Your task to perform on an android device: set default search engine in the chrome app Image 0: 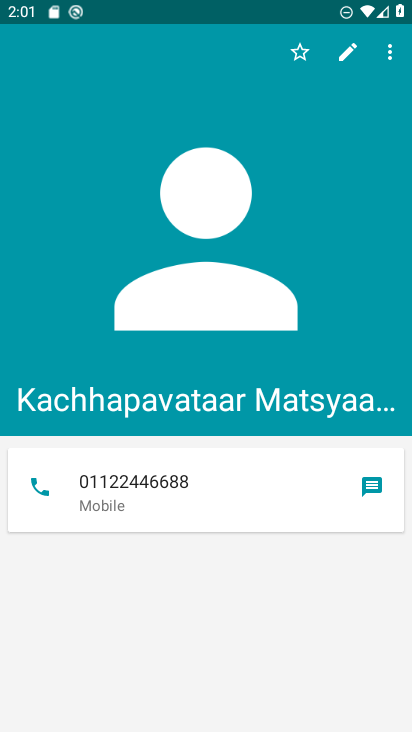
Step 0: press home button
Your task to perform on an android device: set default search engine in the chrome app Image 1: 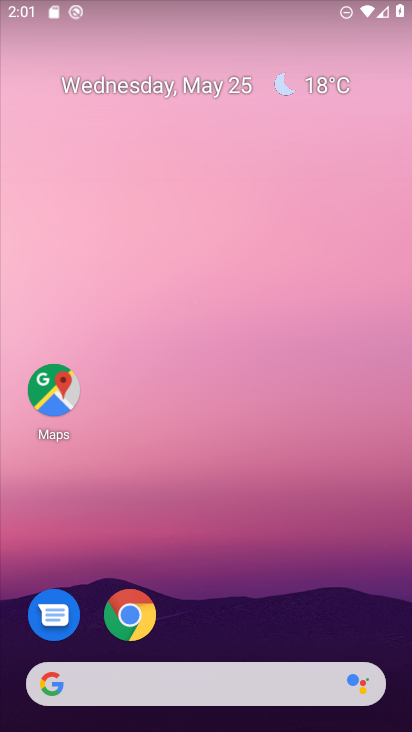
Step 1: click (125, 616)
Your task to perform on an android device: set default search engine in the chrome app Image 2: 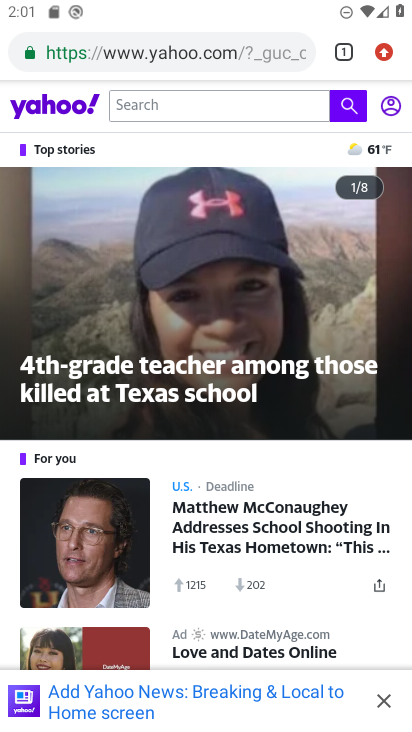
Step 2: click (383, 48)
Your task to perform on an android device: set default search engine in the chrome app Image 3: 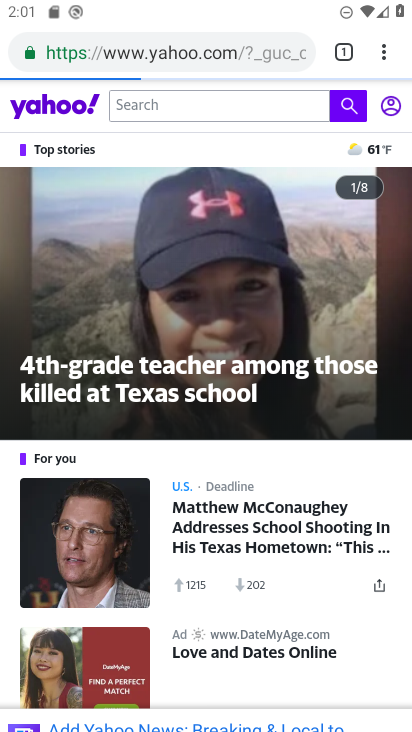
Step 3: click (383, 48)
Your task to perform on an android device: set default search engine in the chrome app Image 4: 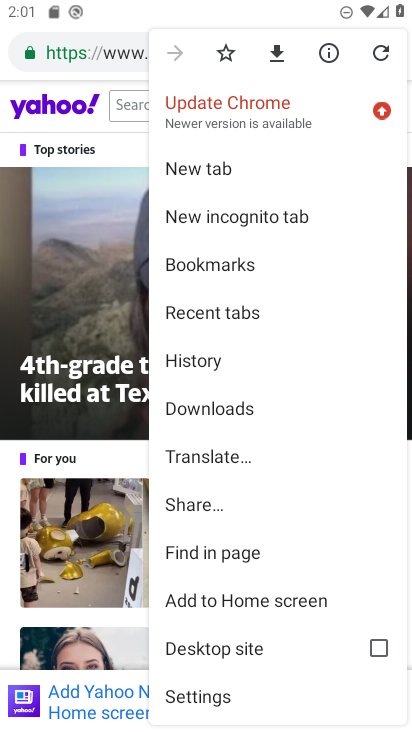
Step 4: click (230, 692)
Your task to perform on an android device: set default search engine in the chrome app Image 5: 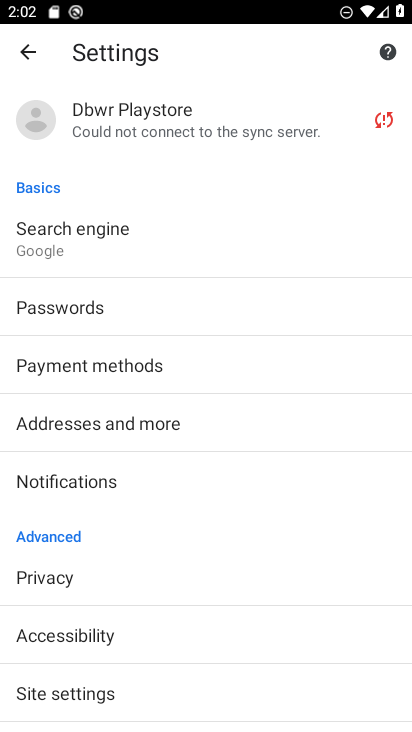
Step 5: drag from (240, 538) to (257, 302)
Your task to perform on an android device: set default search engine in the chrome app Image 6: 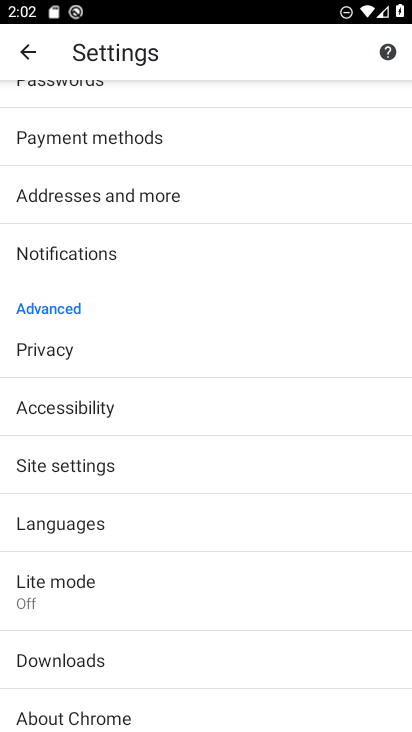
Step 6: click (220, 459)
Your task to perform on an android device: set default search engine in the chrome app Image 7: 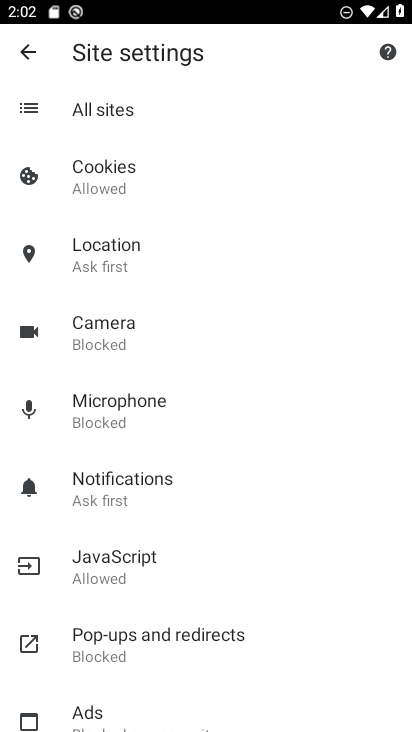
Step 7: click (31, 48)
Your task to perform on an android device: set default search engine in the chrome app Image 8: 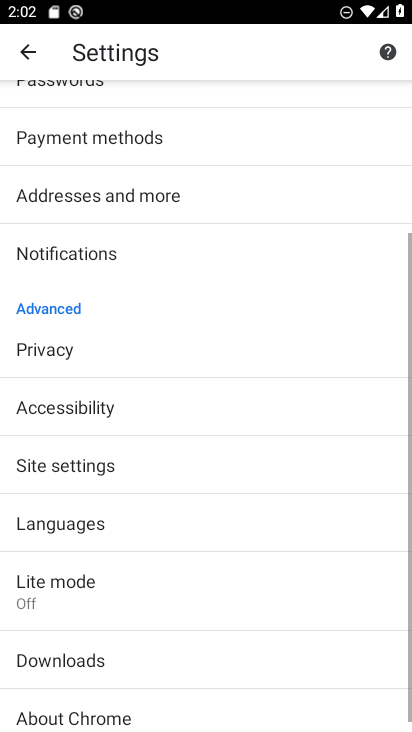
Step 8: drag from (142, 278) to (168, 565)
Your task to perform on an android device: set default search engine in the chrome app Image 9: 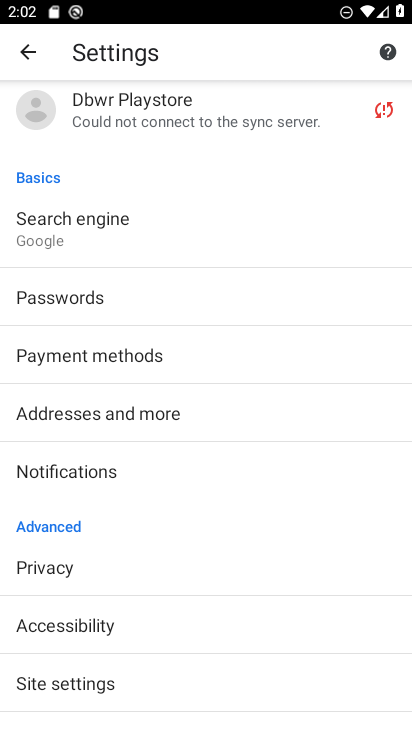
Step 9: click (164, 245)
Your task to perform on an android device: set default search engine in the chrome app Image 10: 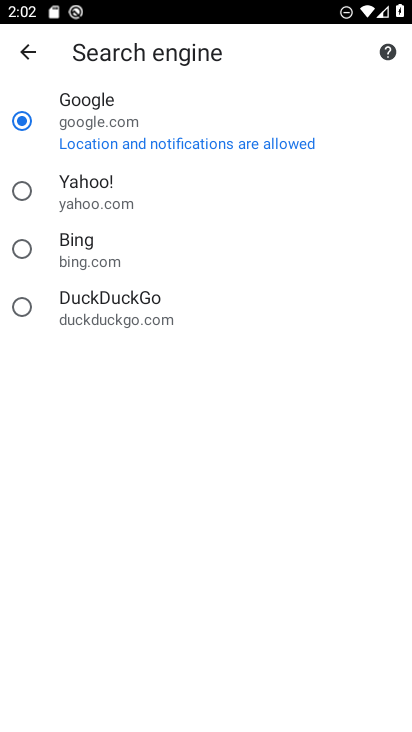
Step 10: task complete